Your task to perform on an android device: turn off smart reply in the gmail app Image 0: 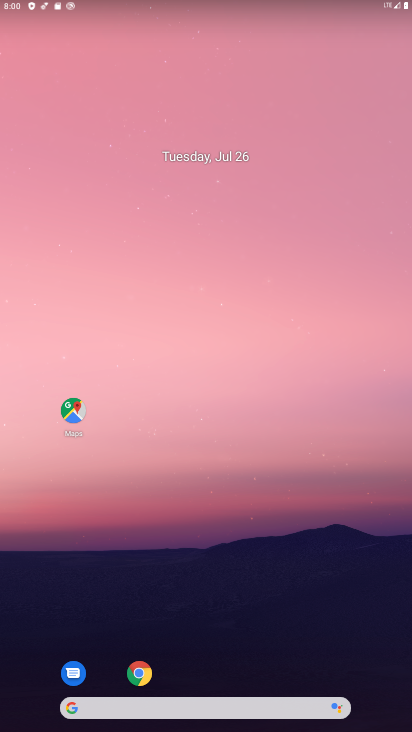
Step 0: drag from (352, 652) to (178, 60)
Your task to perform on an android device: turn off smart reply in the gmail app Image 1: 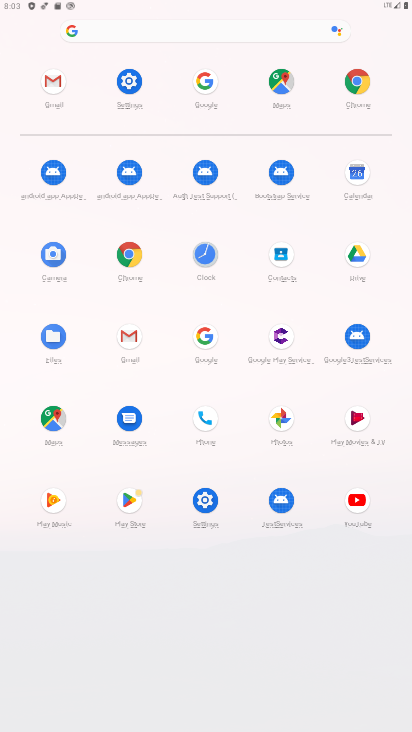
Step 1: click (118, 328)
Your task to perform on an android device: turn off smart reply in the gmail app Image 2: 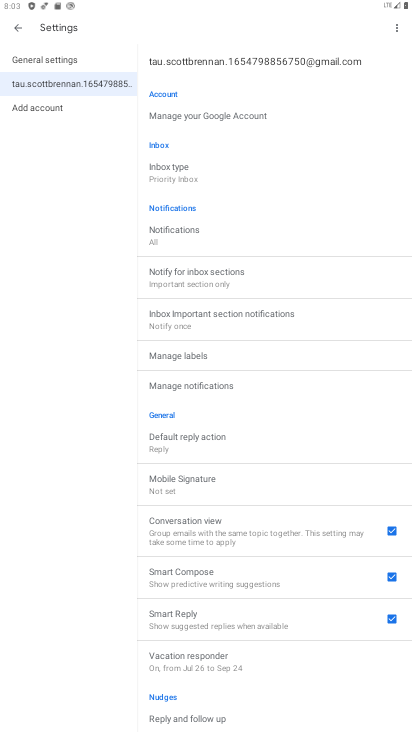
Step 2: click (339, 622)
Your task to perform on an android device: turn off smart reply in the gmail app Image 3: 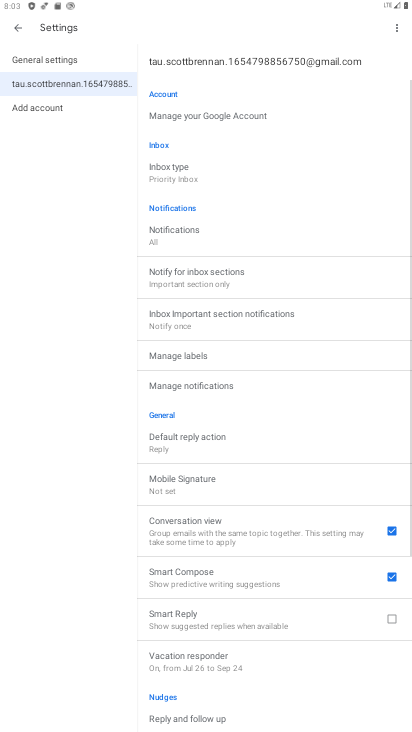
Step 3: task complete